Your task to perform on an android device: check google app version Image 0: 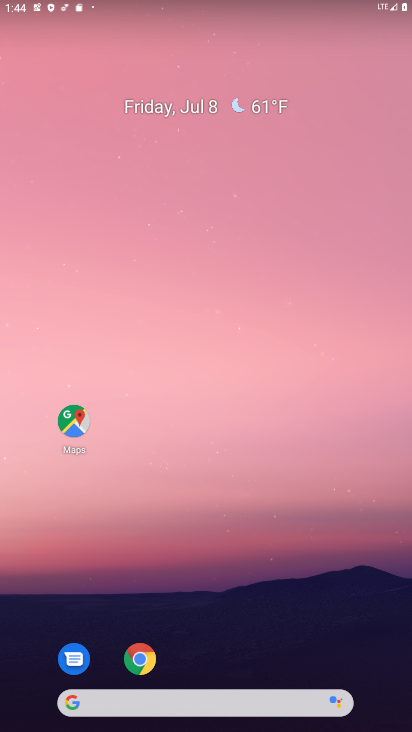
Step 0: drag from (211, 665) to (158, 165)
Your task to perform on an android device: check google app version Image 1: 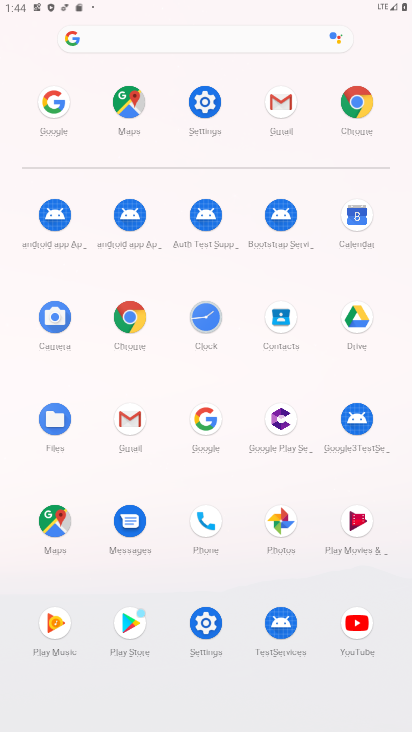
Step 1: click (213, 424)
Your task to perform on an android device: check google app version Image 2: 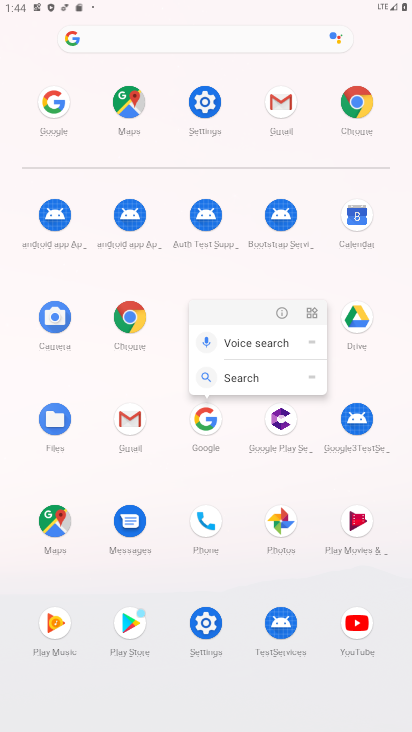
Step 2: click (279, 309)
Your task to perform on an android device: check google app version Image 3: 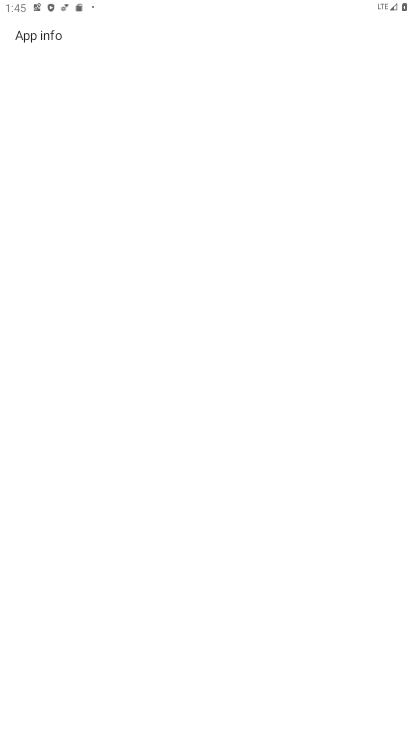
Step 3: drag from (239, 562) to (248, 250)
Your task to perform on an android device: check google app version Image 4: 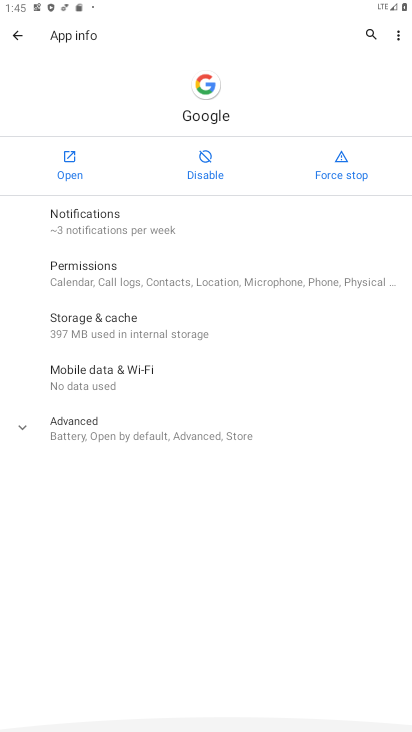
Step 4: click (127, 422)
Your task to perform on an android device: check google app version Image 5: 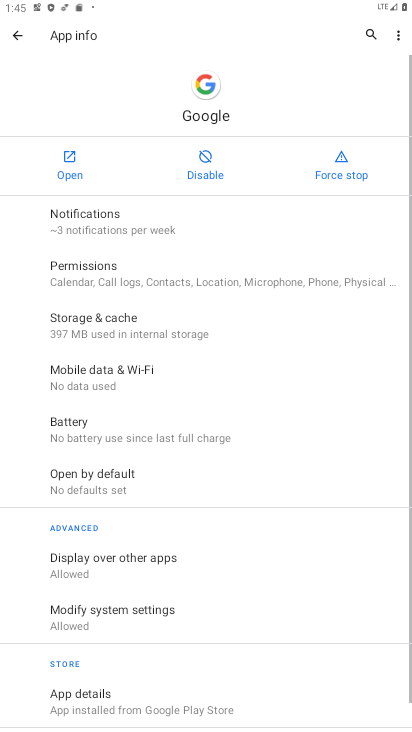
Step 5: task complete